Your task to perform on an android device: set the timer Image 0: 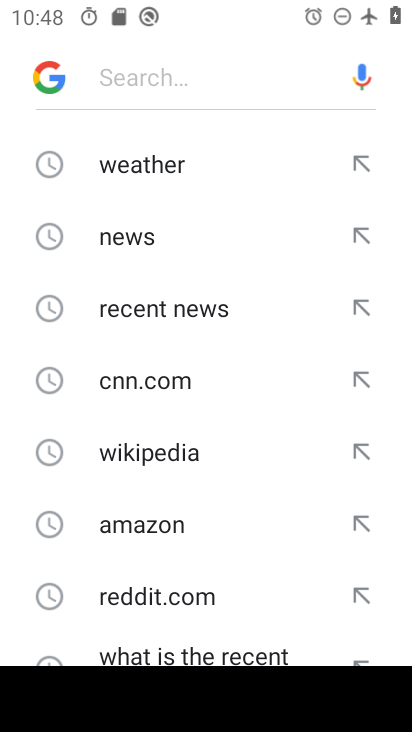
Step 0: press home button
Your task to perform on an android device: set the timer Image 1: 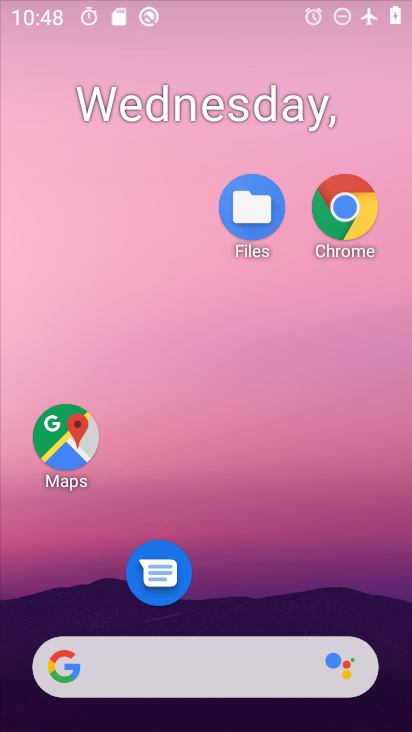
Step 1: drag from (253, 649) to (301, 141)
Your task to perform on an android device: set the timer Image 2: 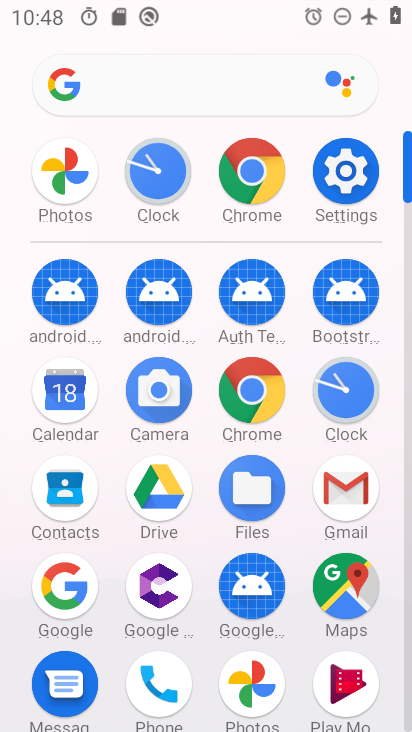
Step 2: click (357, 393)
Your task to perform on an android device: set the timer Image 3: 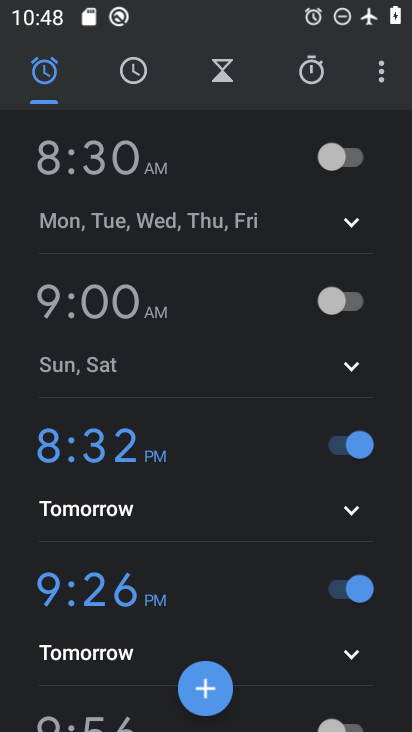
Step 3: click (220, 88)
Your task to perform on an android device: set the timer Image 4: 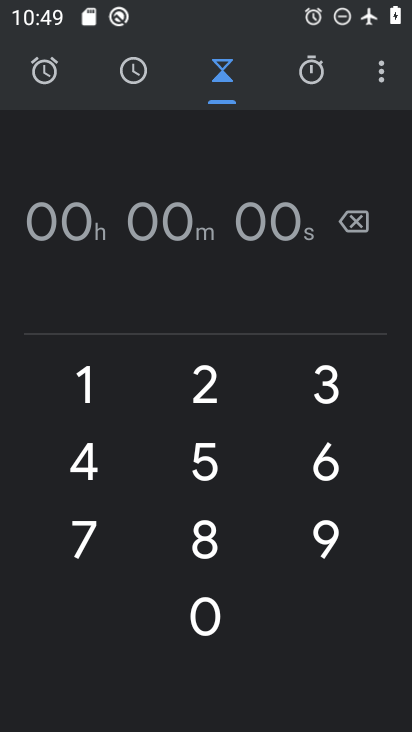
Step 4: click (215, 463)
Your task to perform on an android device: set the timer Image 5: 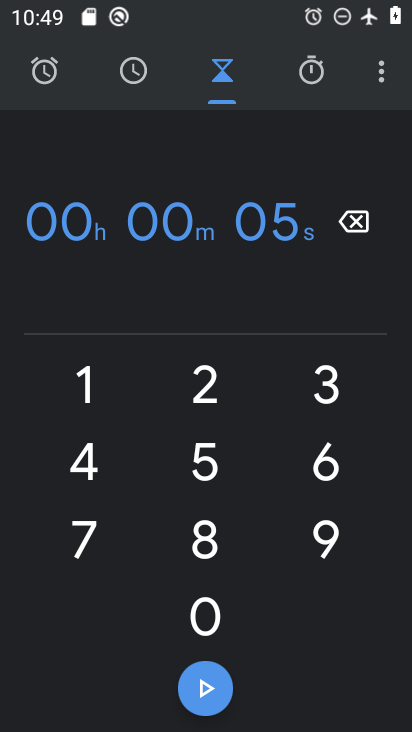
Step 5: click (198, 702)
Your task to perform on an android device: set the timer Image 6: 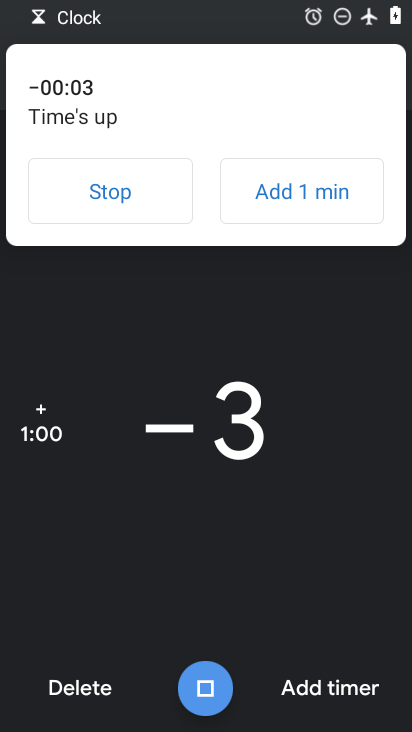
Step 6: task complete